Your task to perform on an android device: change notifications settings Image 0: 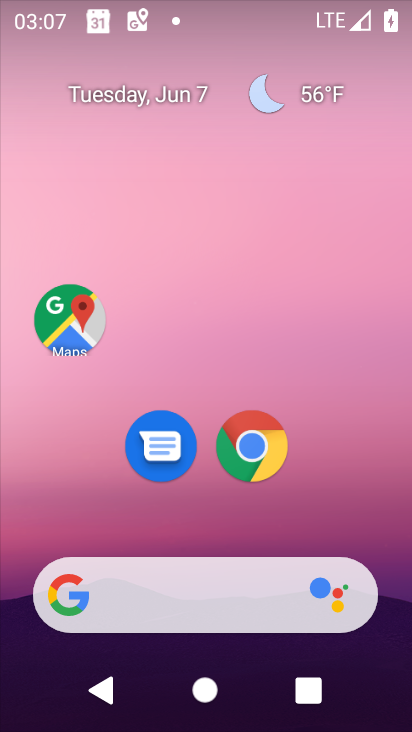
Step 0: drag from (261, 709) to (320, 11)
Your task to perform on an android device: change notifications settings Image 1: 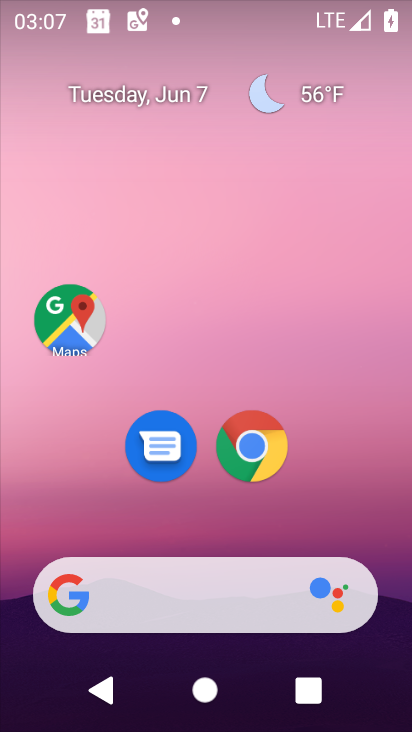
Step 1: drag from (280, 694) to (270, 269)
Your task to perform on an android device: change notifications settings Image 2: 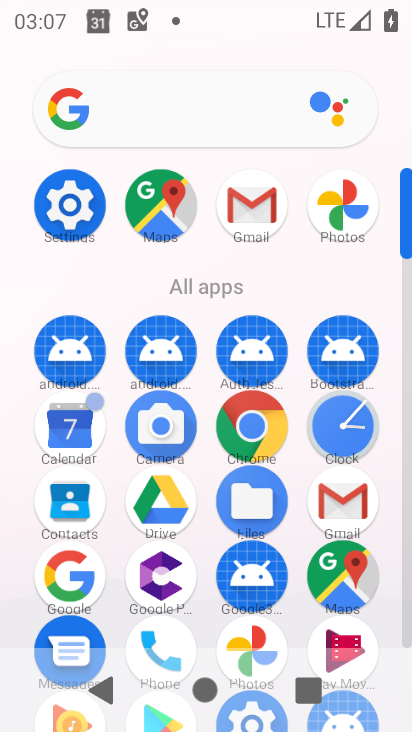
Step 2: click (78, 206)
Your task to perform on an android device: change notifications settings Image 3: 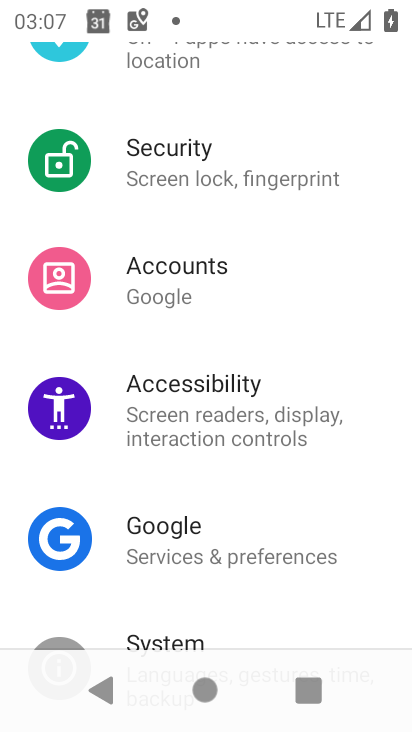
Step 3: drag from (353, 95) to (279, 715)
Your task to perform on an android device: change notifications settings Image 4: 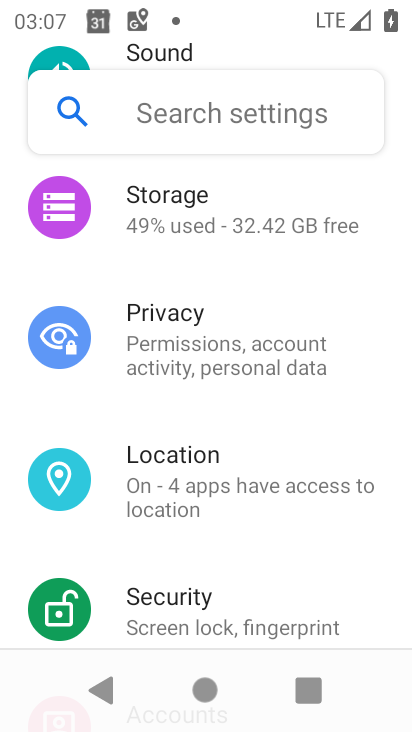
Step 4: drag from (226, 239) to (240, 699)
Your task to perform on an android device: change notifications settings Image 5: 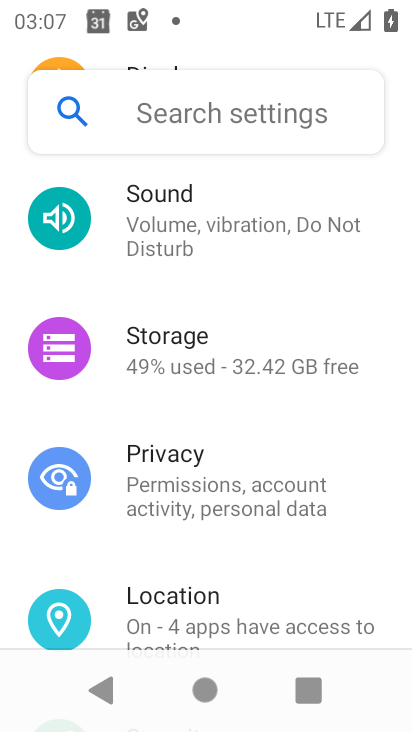
Step 5: drag from (212, 517) to (155, 706)
Your task to perform on an android device: change notifications settings Image 6: 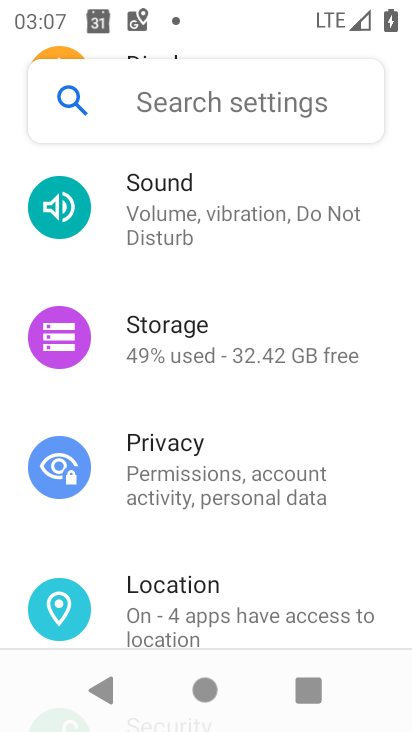
Step 6: drag from (234, 176) to (234, 696)
Your task to perform on an android device: change notifications settings Image 7: 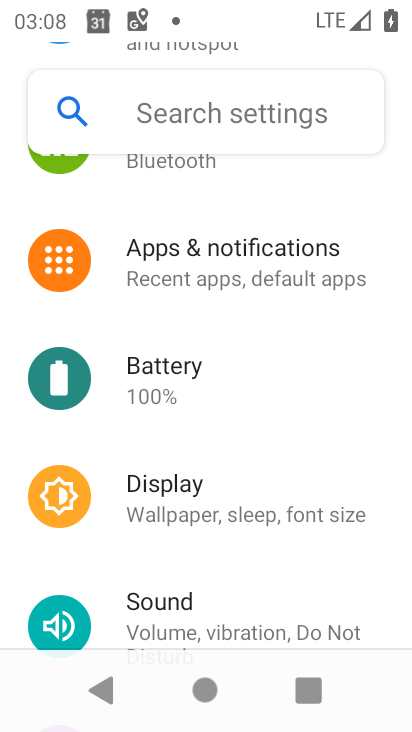
Step 7: click (279, 254)
Your task to perform on an android device: change notifications settings Image 8: 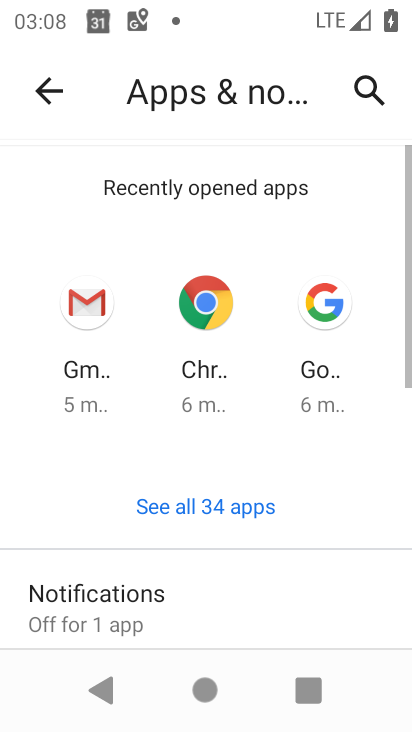
Step 8: click (162, 601)
Your task to perform on an android device: change notifications settings Image 9: 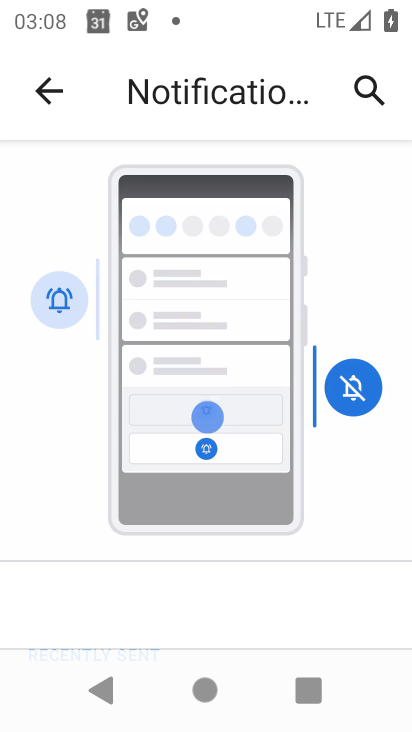
Step 9: drag from (214, 553) to (210, 59)
Your task to perform on an android device: change notifications settings Image 10: 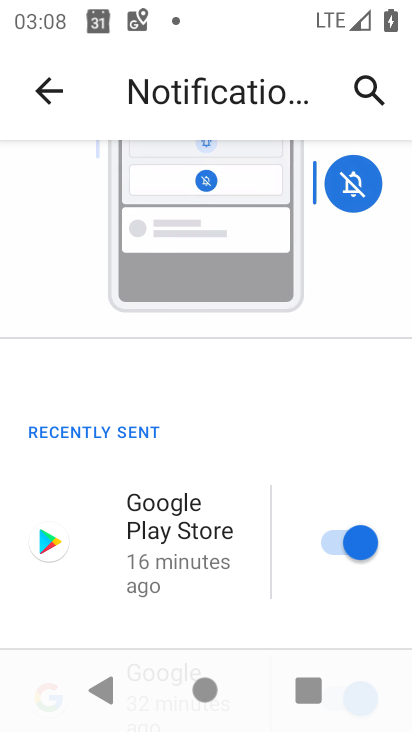
Step 10: click (352, 536)
Your task to perform on an android device: change notifications settings Image 11: 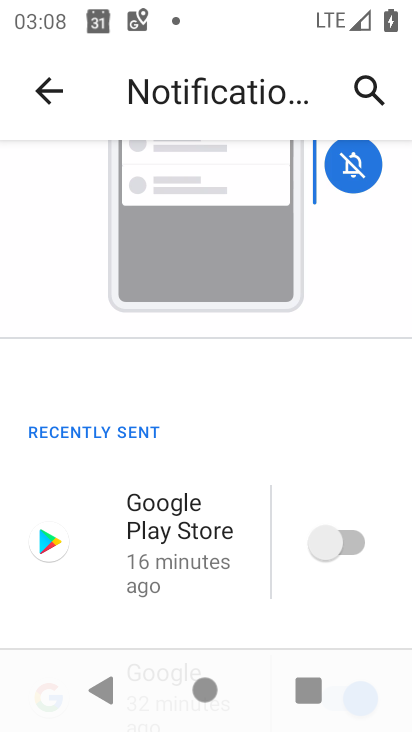
Step 11: task complete